Your task to perform on an android device: Go to eBay Image 0: 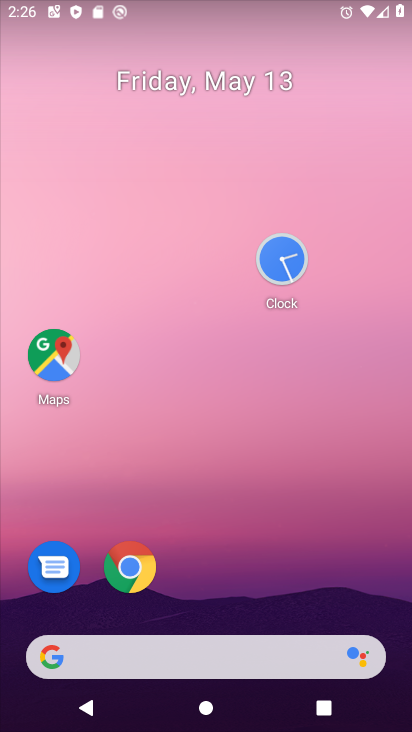
Step 0: click (142, 559)
Your task to perform on an android device: Go to eBay Image 1: 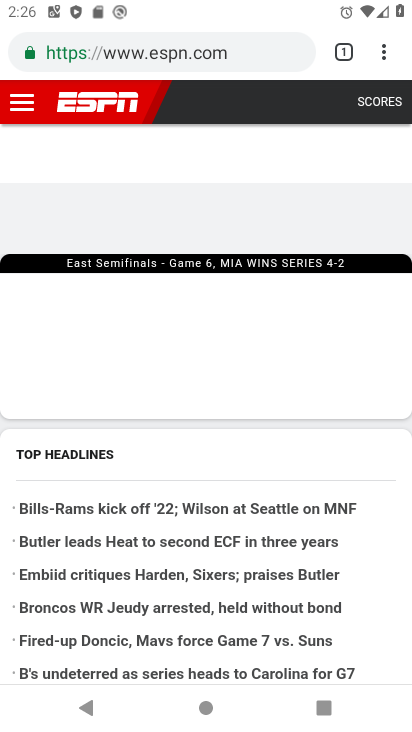
Step 1: click (207, 63)
Your task to perform on an android device: Go to eBay Image 2: 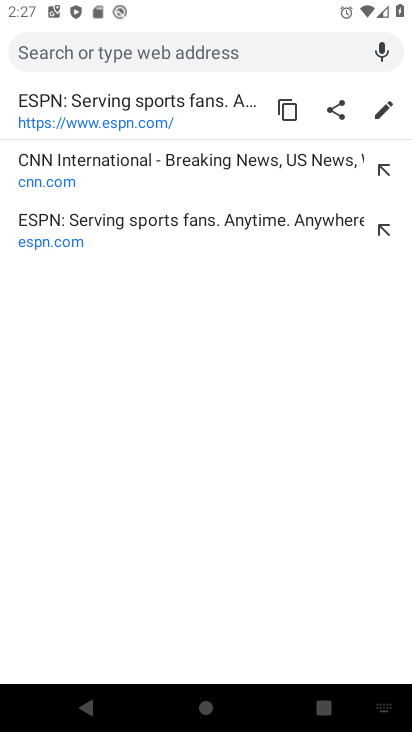
Step 2: type "ebay.in"
Your task to perform on an android device: Go to eBay Image 3: 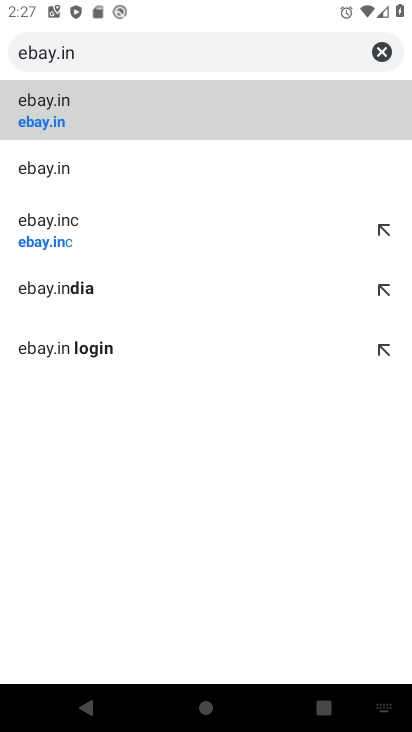
Step 3: click (58, 133)
Your task to perform on an android device: Go to eBay Image 4: 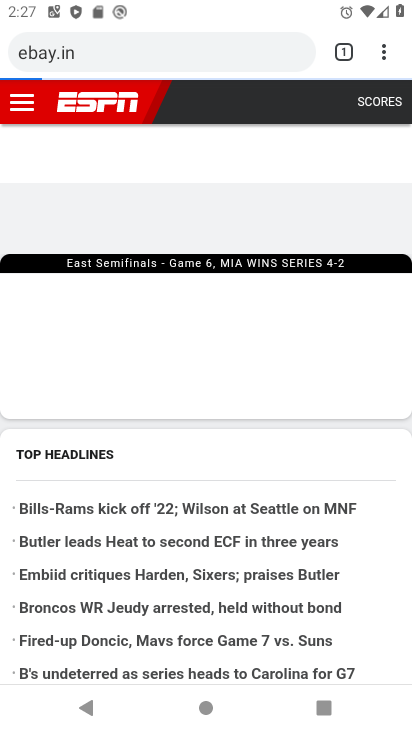
Step 4: task complete